Your task to perform on an android device: Open Youtube and go to "Your channel" Image 0: 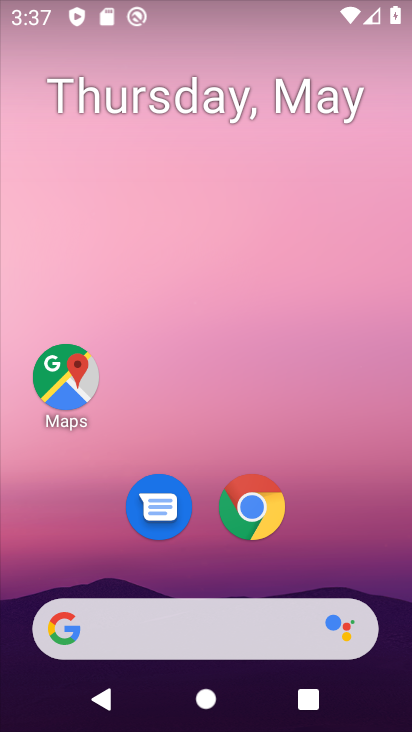
Step 0: drag from (356, 510) to (291, 164)
Your task to perform on an android device: Open Youtube and go to "Your channel" Image 1: 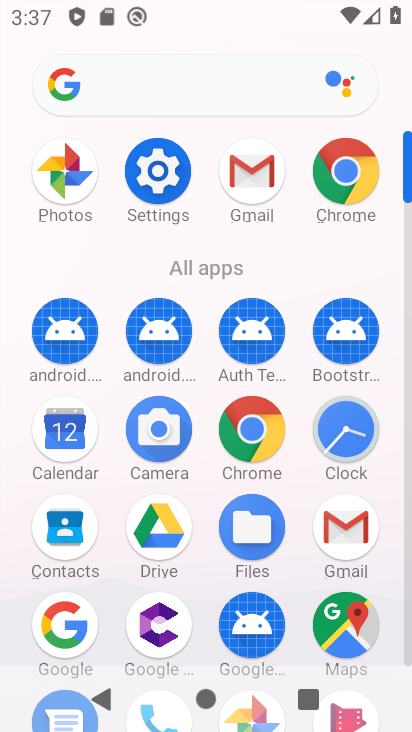
Step 1: drag from (300, 524) to (259, 111)
Your task to perform on an android device: Open Youtube and go to "Your channel" Image 2: 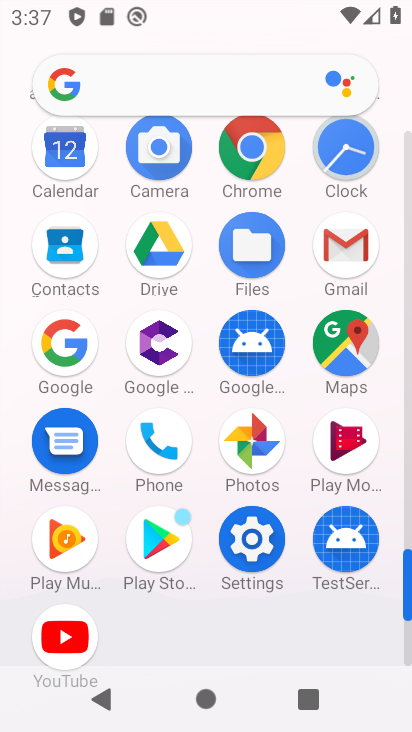
Step 2: drag from (294, 406) to (279, 77)
Your task to perform on an android device: Open Youtube and go to "Your channel" Image 3: 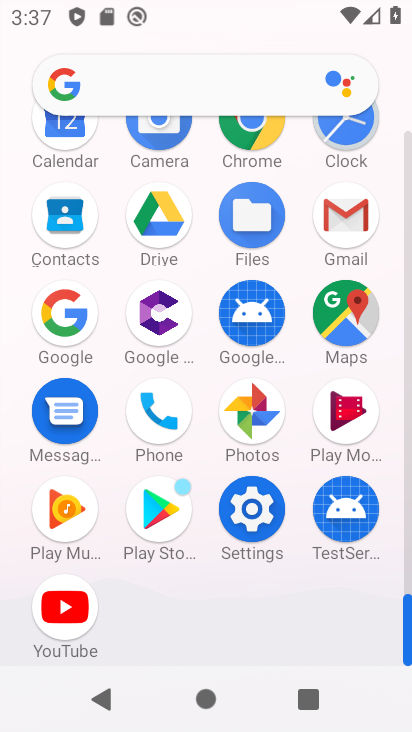
Step 3: click (69, 611)
Your task to perform on an android device: Open Youtube and go to "Your channel" Image 4: 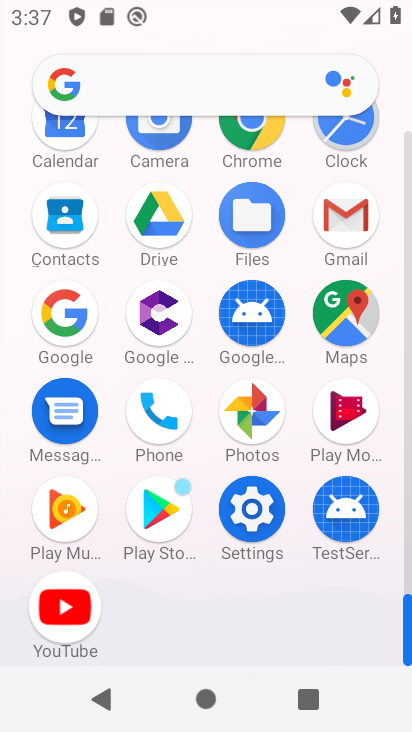
Step 4: click (77, 599)
Your task to perform on an android device: Open Youtube and go to "Your channel" Image 5: 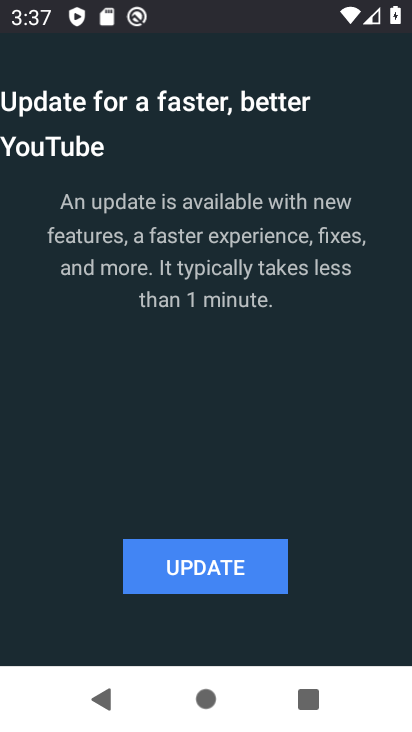
Step 5: click (206, 574)
Your task to perform on an android device: Open Youtube and go to "Your channel" Image 6: 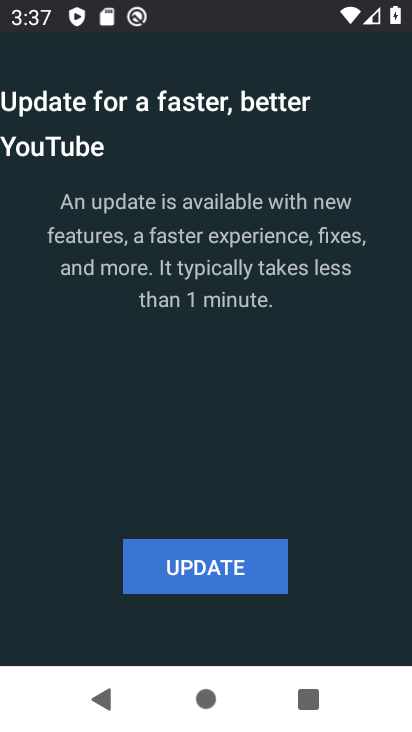
Step 6: click (205, 573)
Your task to perform on an android device: Open Youtube and go to "Your channel" Image 7: 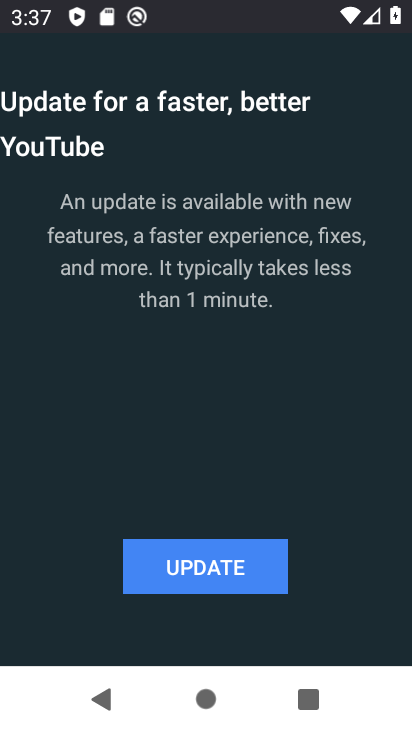
Step 7: click (205, 573)
Your task to perform on an android device: Open Youtube and go to "Your channel" Image 8: 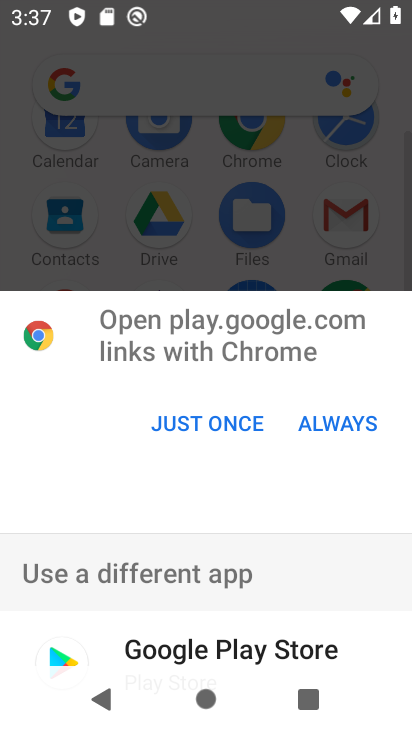
Step 8: click (204, 559)
Your task to perform on an android device: Open Youtube and go to "Your channel" Image 9: 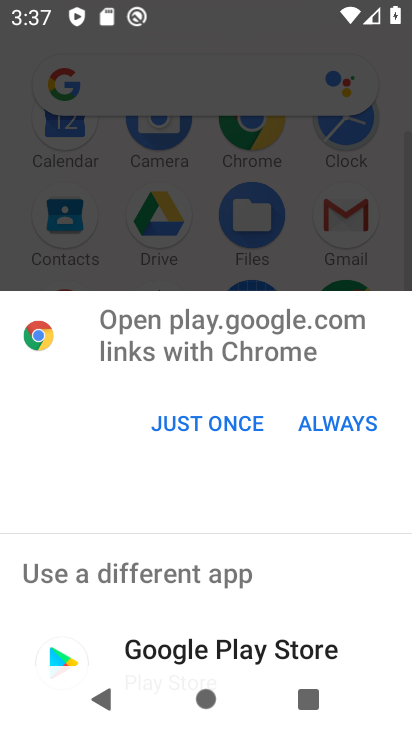
Step 9: click (201, 556)
Your task to perform on an android device: Open Youtube and go to "Your channel" Image 10: 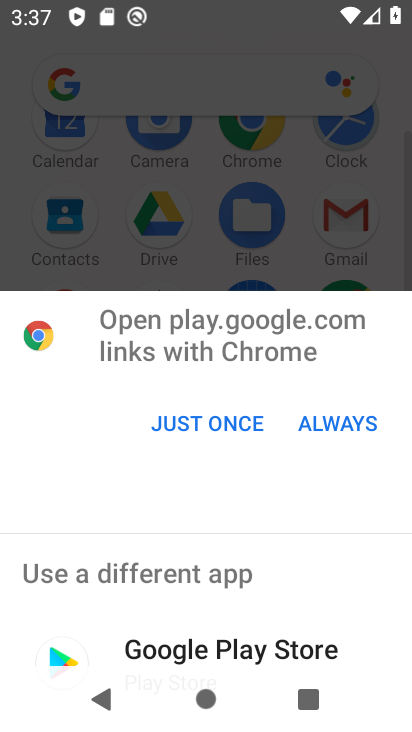
Step 10: click (387, 236)
Your task to perform on an android device: Open Youtube and go to "Your channel" Image 11: 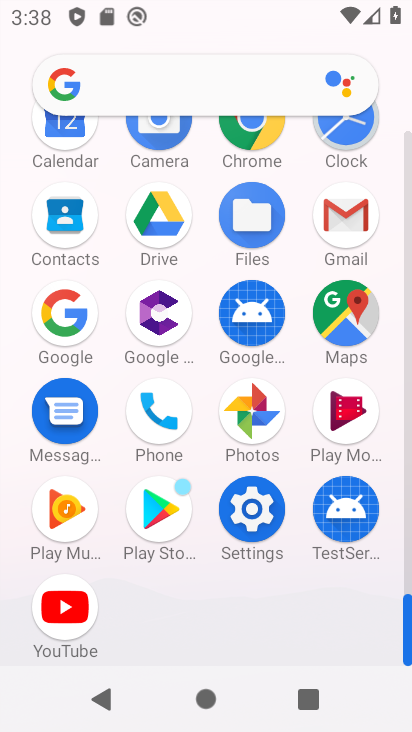
Step 11: click (62, 611)
Your task to perform on an android device: Open Youtube and go to "Your channel" Image 12: 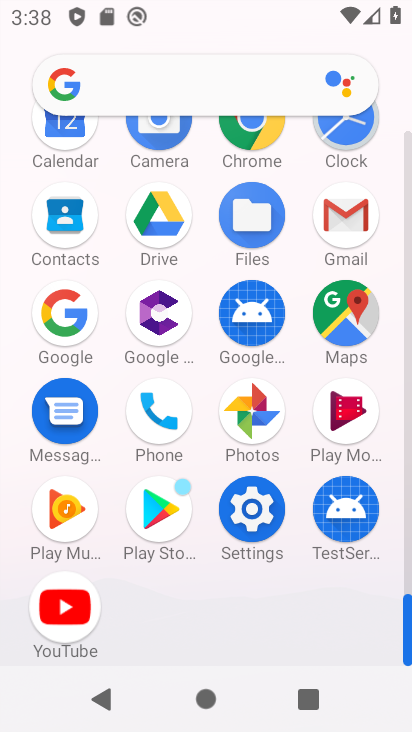
Step 12: click (63, 611)
Your task to perform on an android device: Open Youtube and go to "Your channel" Image 13: 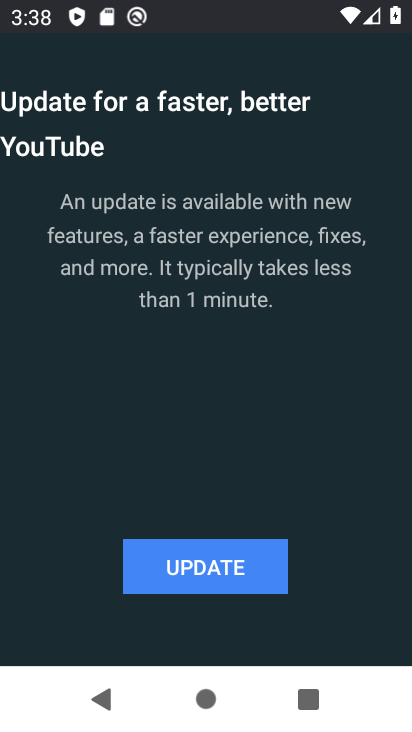
Step 13: click (214, 559)
Your task to perform on an android device: Open Youtube and go to "Your channel" Image 14: 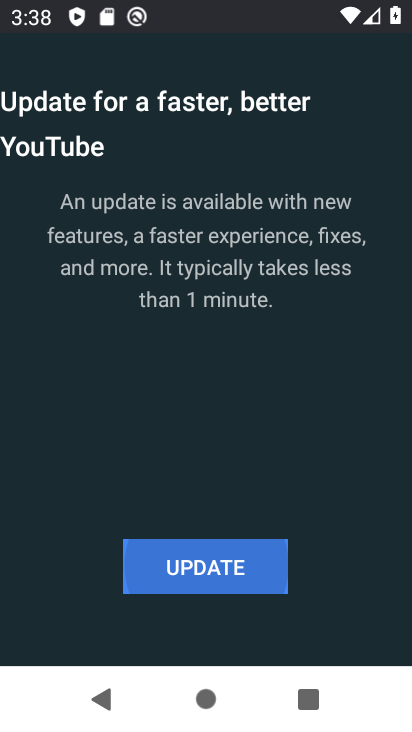
Step 14: click (214, 560)
Your task to perform on an android device: Open Youtube and go to "Your channel" Image 15: 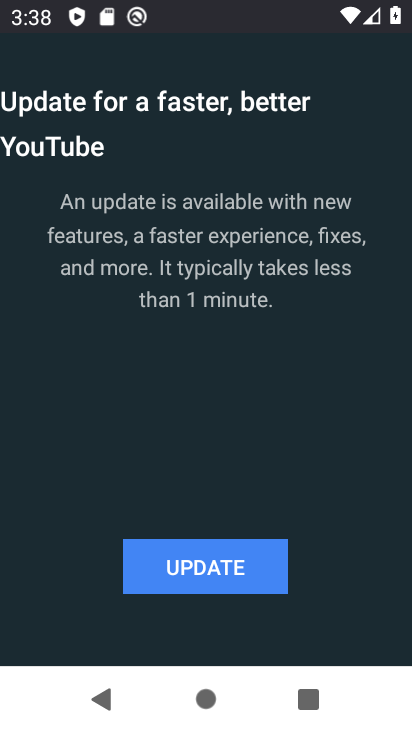
Step 15: click (214, 561)
Your task to perform on an android device: Open Youtube and go to "Your channel" Image 16: 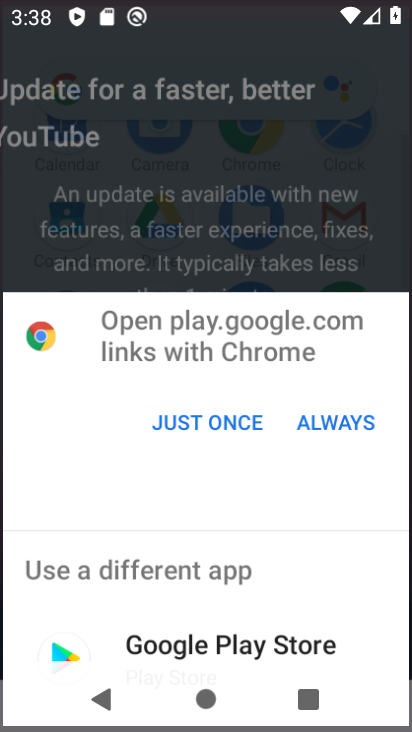
Step 16: click (215, 562)
Your task to perform on an android device: Open Youtube and go to "Your channel" Image 17: 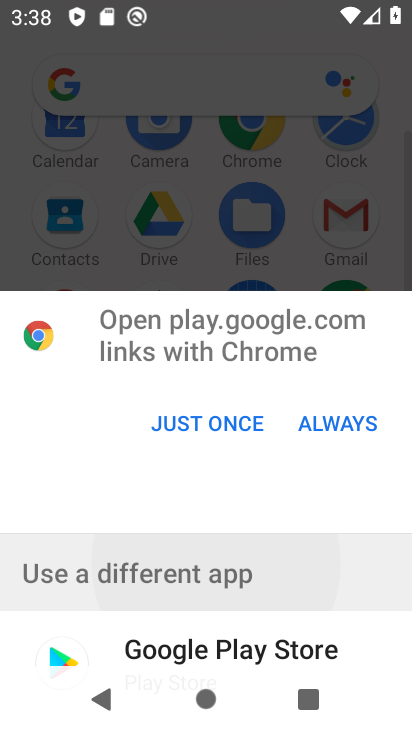
Step 17: click (215, 562)
Your task to perform on an android device: Open Youtube and go to "Your channel" Image 18: 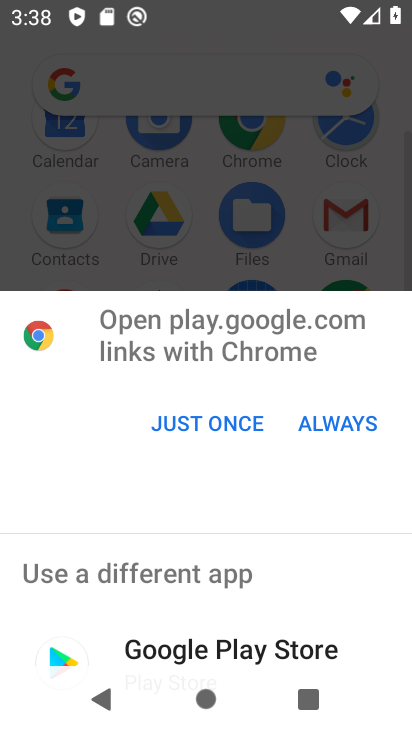
Step 18: click (365, 240)
Your task to perform on an android device: Open Youtube and go to "Your channel" Image 19: 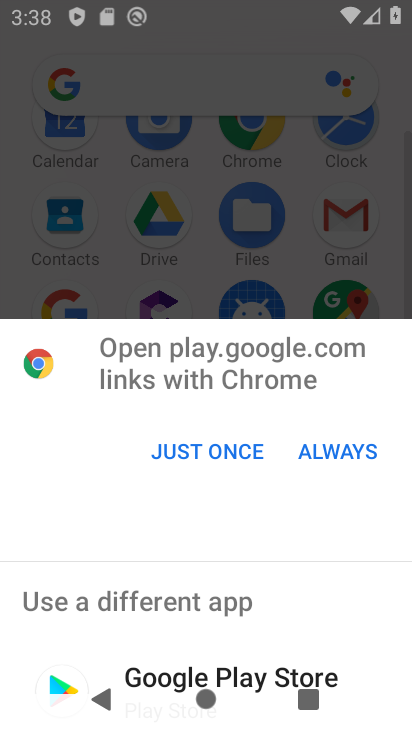
Step 19: click (389, 235)
Your task to perform on an android device: Open Youtube and go to "Your channel" Image 20: 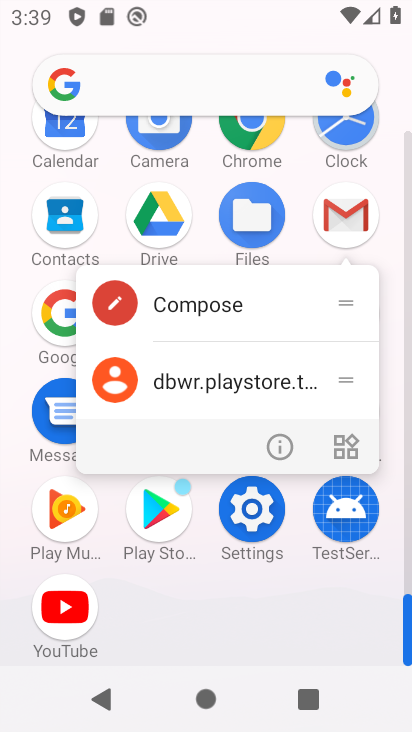
Step 20: click (66, 601)
Your task to perform on an android device: Open Youtube and go to "Your channel" Image 21: 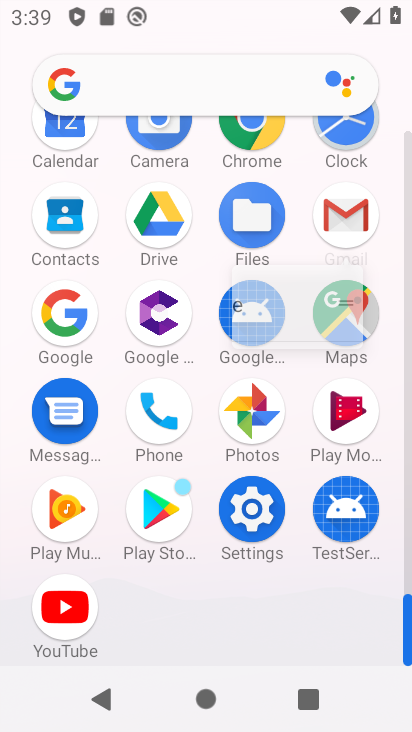
Step 21: click (66, 601)
Your task to perform on an android device: Open Youtube and go to "Your channel" Image 22: 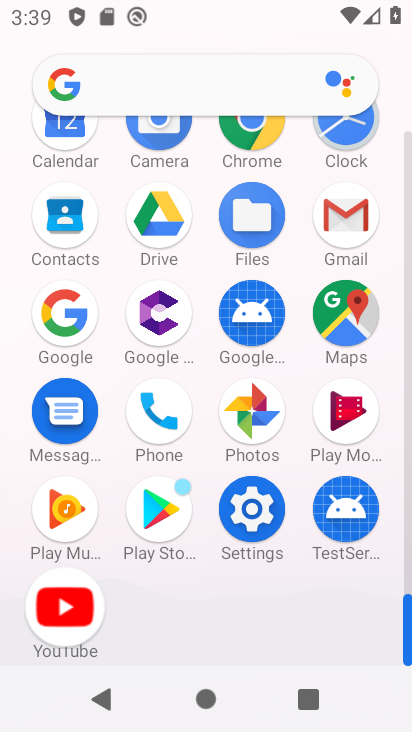
Step 22: click (65, 622)
Your task to perform on an android device: Open Youtube and go to "Your channel" Image 23: 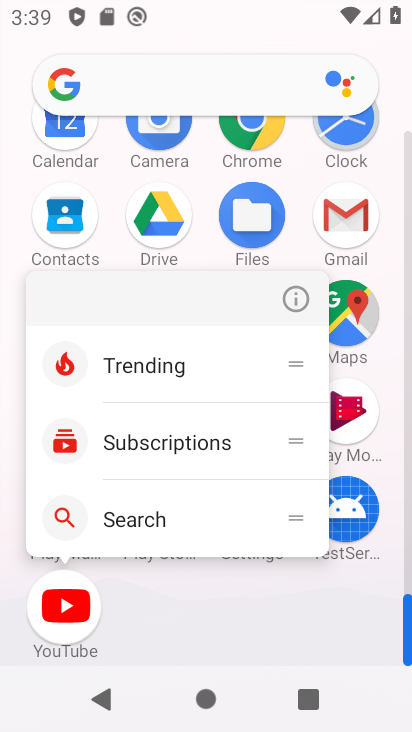
Step 23: click (69, 635)
Your task to perform on an android device: Open Youtube and go to "Your channel" Image 24: 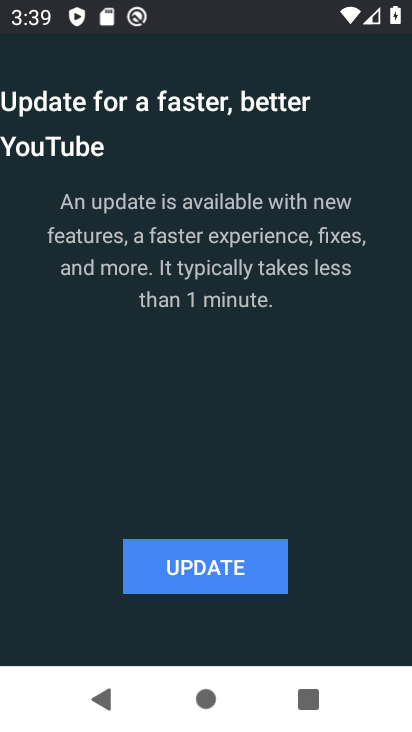
Step 24: click (213, 571)
Your task to perform on an android device: Open Youtube and go to "Your channel" Image 25: 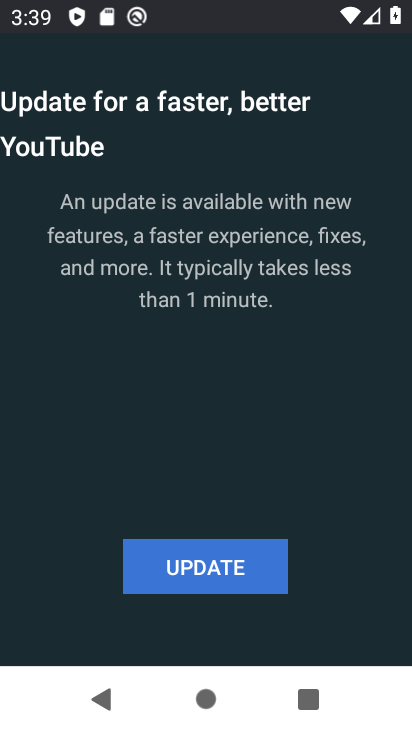
Step 25: click (211, 568)
Your task to perform on an android device: Open Youtube and go to "Your channel" Image 26: 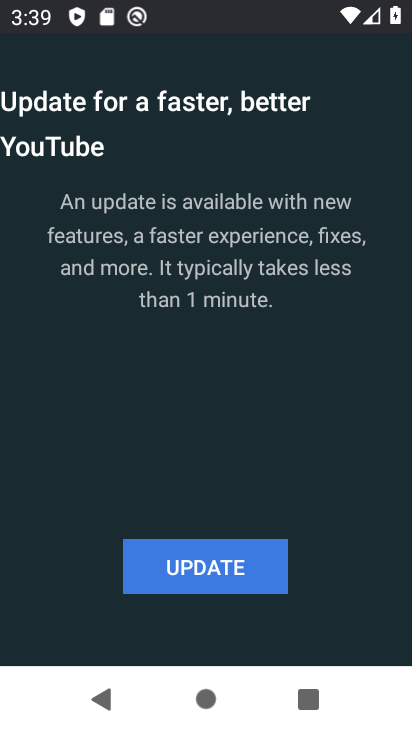
Step 26: click (207, 568)
Your task to perform on an android device: Open Youtube and go to "Your channel" Image 27: 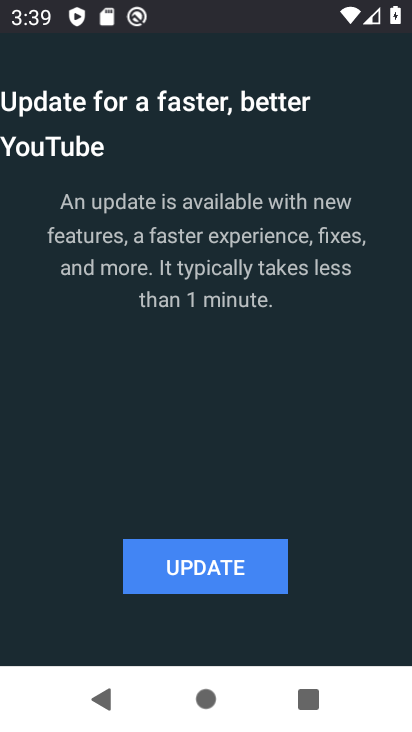
Step 27: click (207, 569)
Your task to perform on an android device: Open Youtube and go to "Your channel" Image 28: 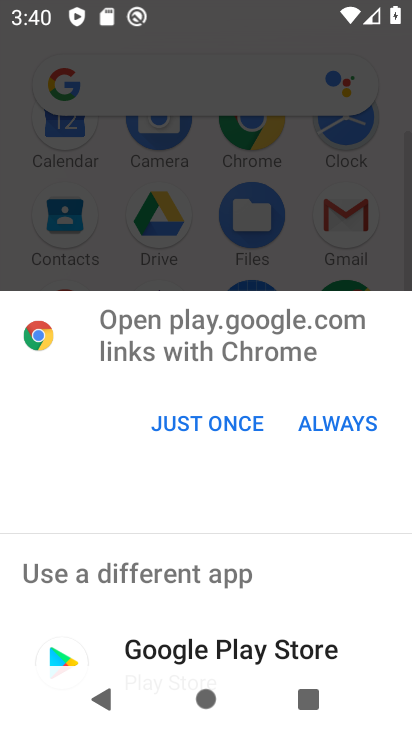
Step 28: press back button
Your task to perform on an android device: Open Youtube and go to "Your channel" Image 29: 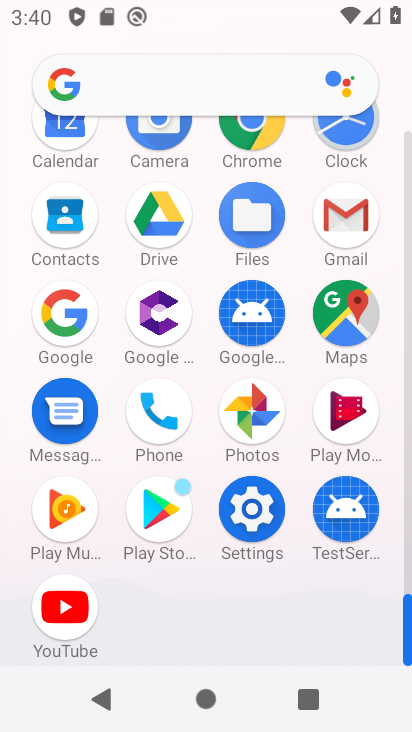
Step 29: press home button
Your task to perform on an android device: Open Youtube and go to "Your channel" Image 30: 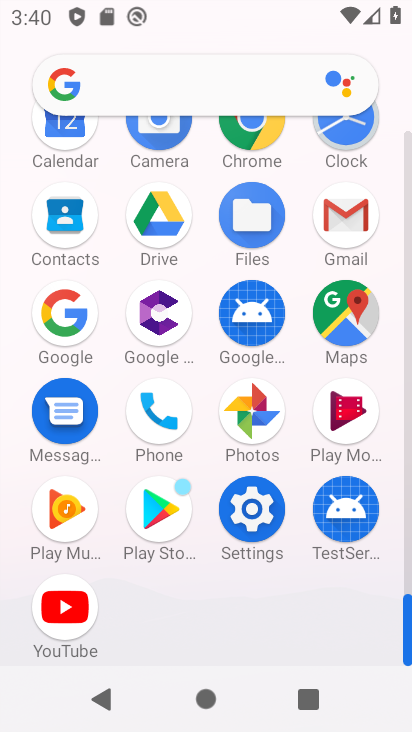
Step 30: press home button
Your task to perform on an android device: Open Youtube and go to "Your channel" Image 31: 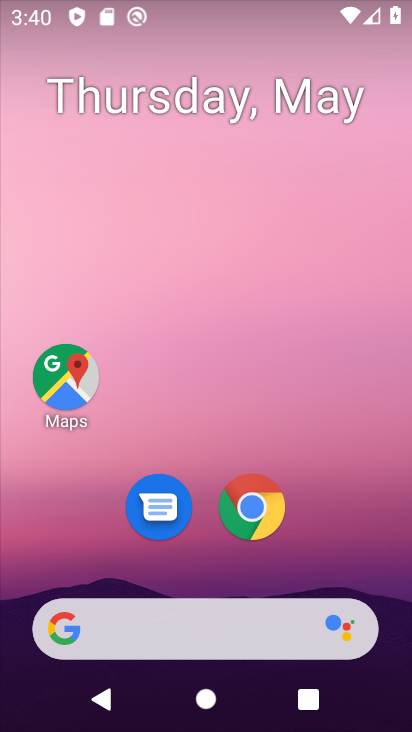
Step 31: press home button
Your task to perform on an android device: Open Youtube and go to "Your channel" Image 32: 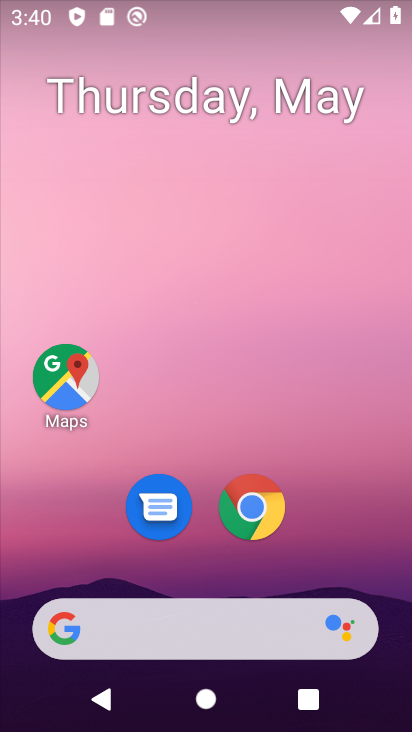
Step 32: drag from (368, 700) to (258, 211)
Your task to perform on an android device: Open Youtube and go to "Your channel" Image 33: 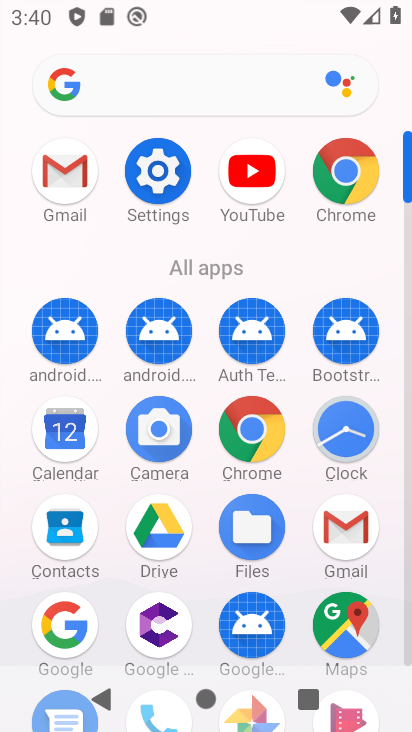
Step 33: click (244, 170)
Your task to perform on an android device: Open Youtube and go to "Your channel" Image 34: 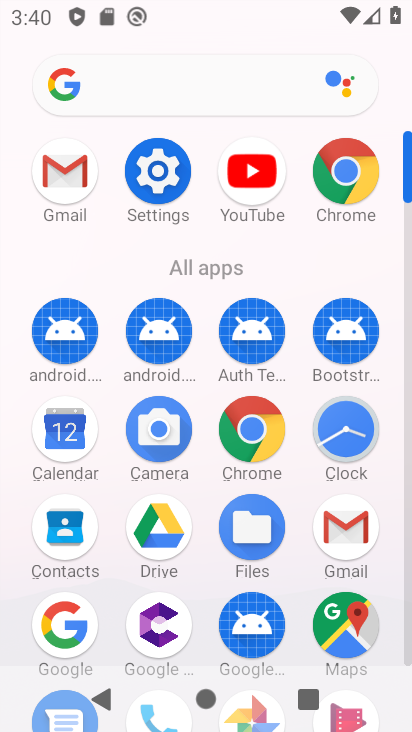
Step 34: click (246, 171)
Your task to perform on an android device: Open Youtube and go to "Your channel" Image 35: 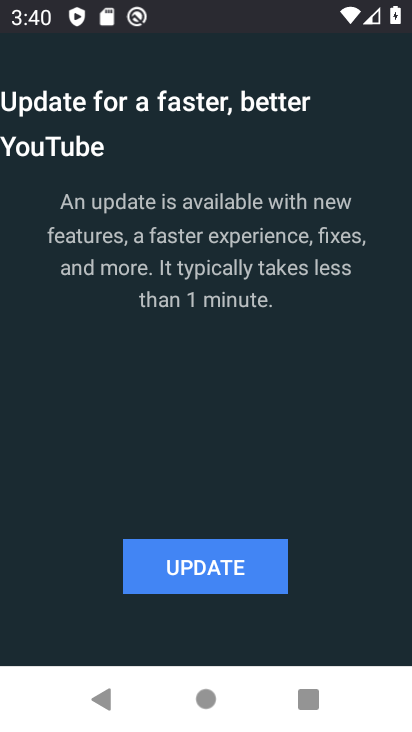
Step 35: click (202, 561)
Your task to perform on an android device: Open Youtube and go to "Your channel" Image 36: 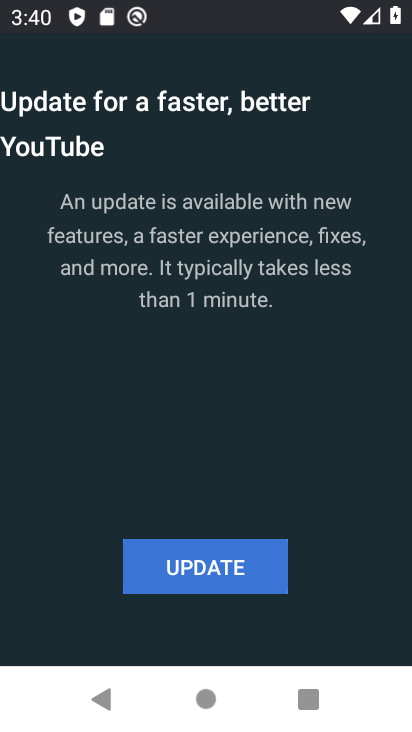
Step 36: click (202, 561)
Your task to perform on an android device: Open Youtube and go to "Your channel" Image 37: 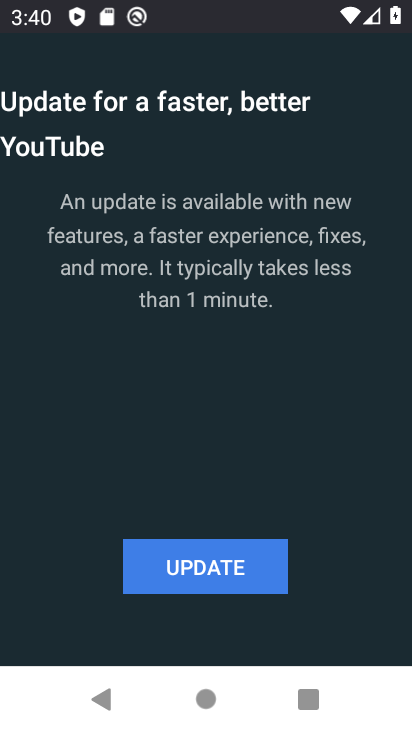
Step 37: click (202, 567)
Your task to perform on an android device: Open Youtube and go to "Your channel" Image 38: 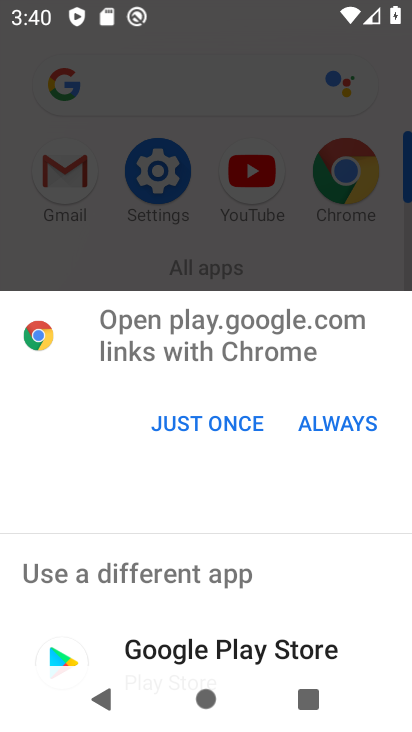
Step 38: click (329, 245)
Your task to perform on an android device: Open Youtube and go to "Your channel" Image 39: 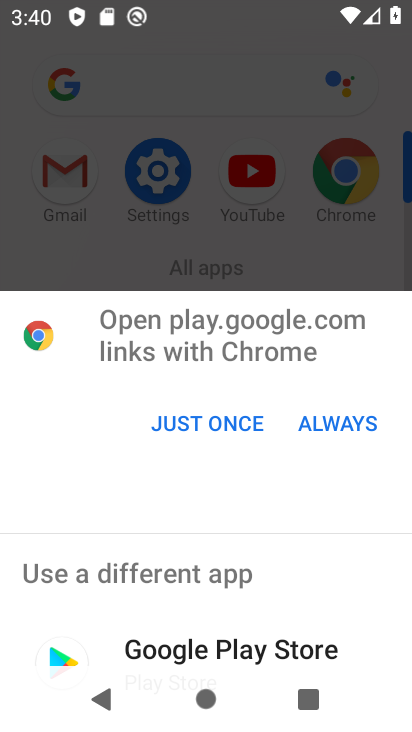
Step 39: click (328, 250)
Your task to perform on an android device: Open Youtube and go to "Your channel" Image 40: 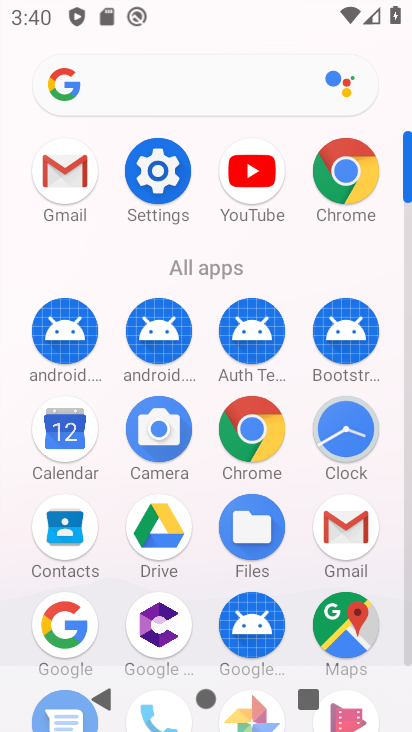
Step 40: click (251, 171)
Your task to perform on an android device: Open Youtube and go to "Your channel" Image 41: 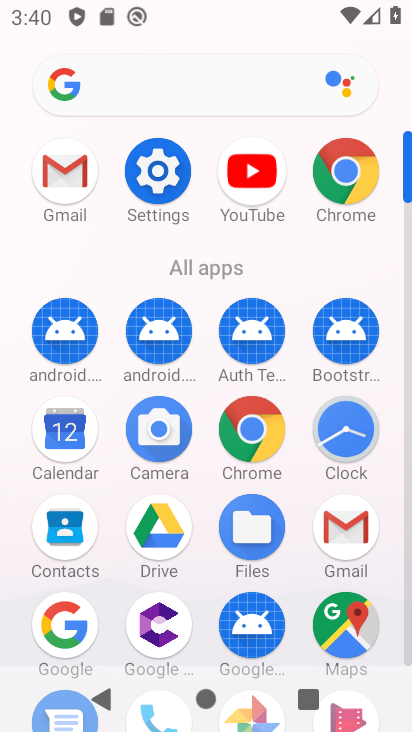
Step 41: click (253, 166)
Your task to perform on an android device: Open Youtube and go to "Your channel" Image 42: 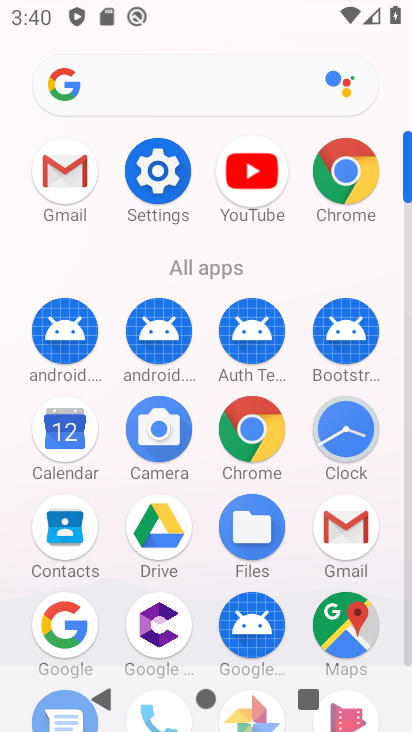
Step 42: click (256, 164)
Your task to perform on an android device: Open Youtube and go to "Your channel" Image 43: 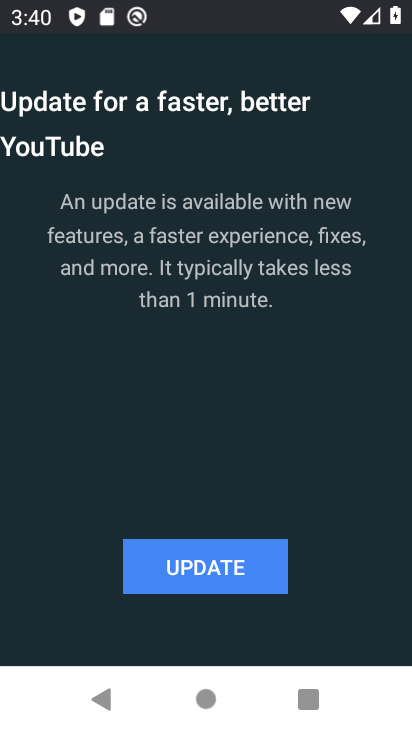
Step 43: click (186, 564)
Your task to perform on an android device: Open Youtube and go to "Your channel" Image 44: 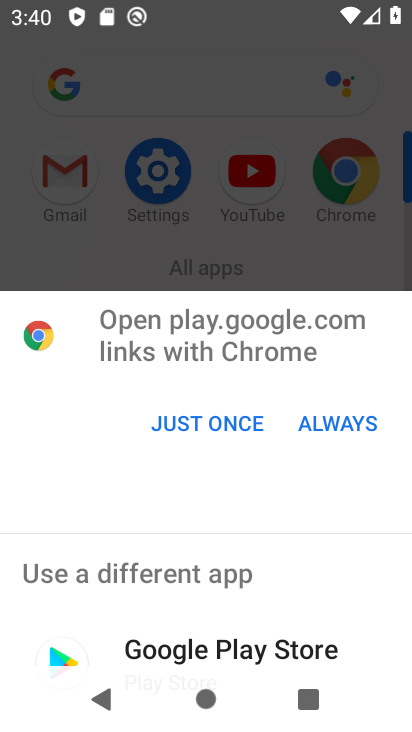
Step 44: click (176, 629)
Your task to perform on an android device: Open Youtube and go to "Your channel" Image 45: 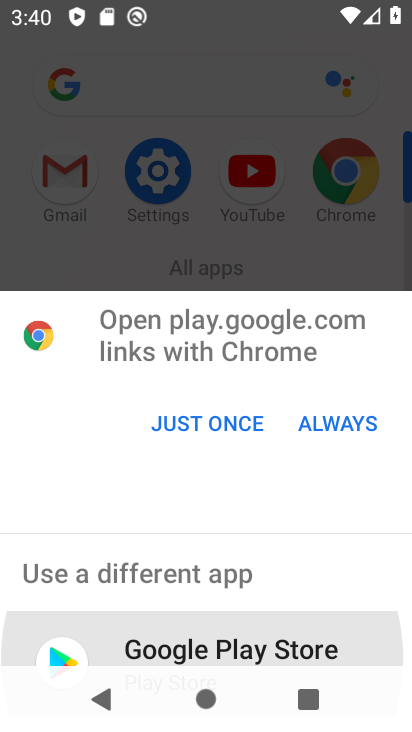
Step 45: click (176, 629)
Your task to perform on an android device: Open Youtube and go to "Your channel" Image 46: 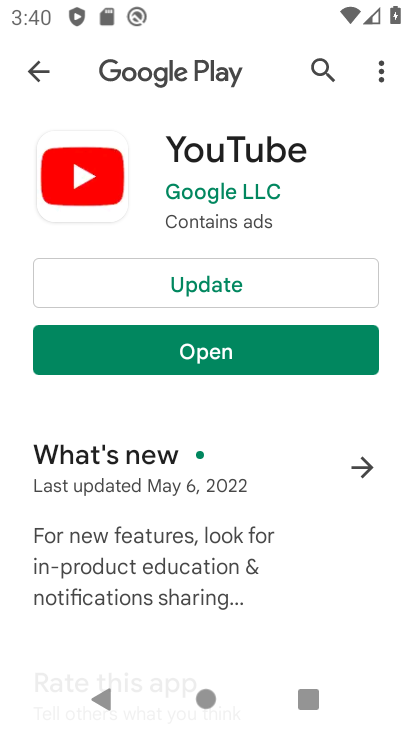
Step 46: click (218, 291)
Your task to perform on an android device: Open Youtube and go to "Your channel" Image 47: 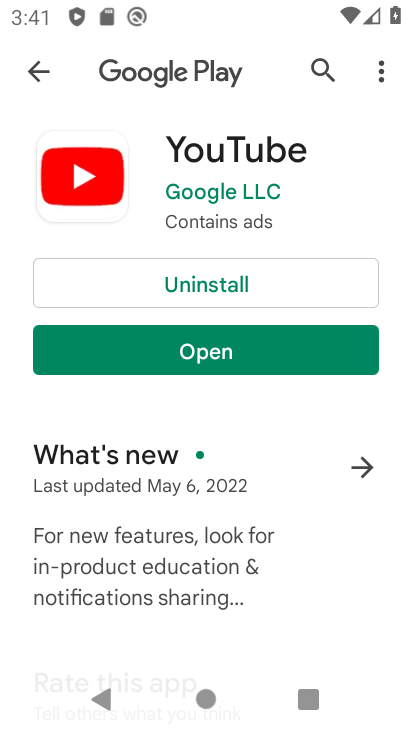
Step 47: click (215, 347)
Your task to perform on an android device: Open Youtube and go to "Your channel" Image 48: 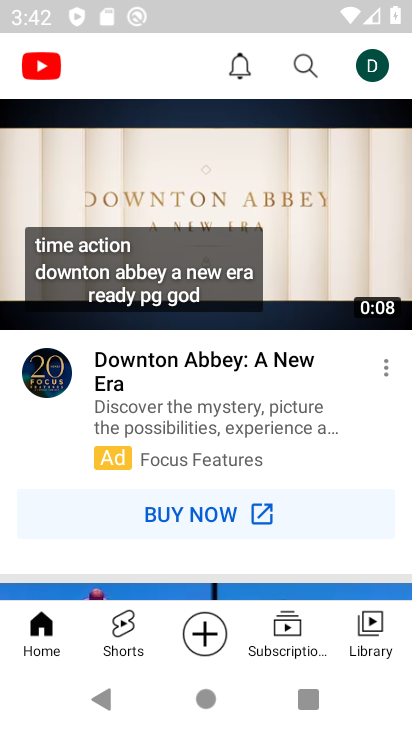
Step 48: task complete